Your task to perform on an android device: Open notification settings Image 0: 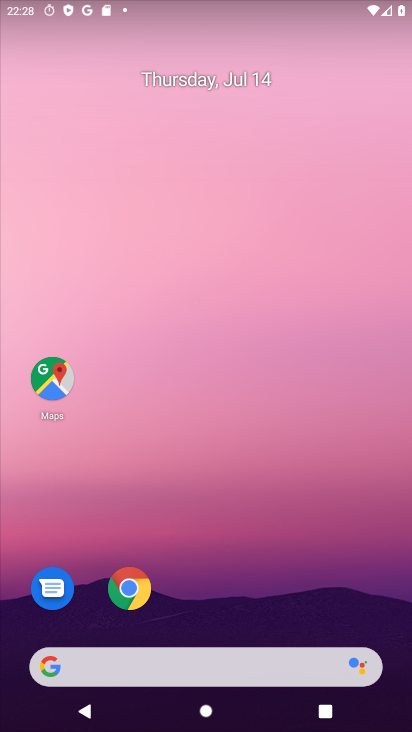
Step 0: drag from (224, 611) to (258, 166)
Your task to perform on an android device: Open notification settings Image 1: 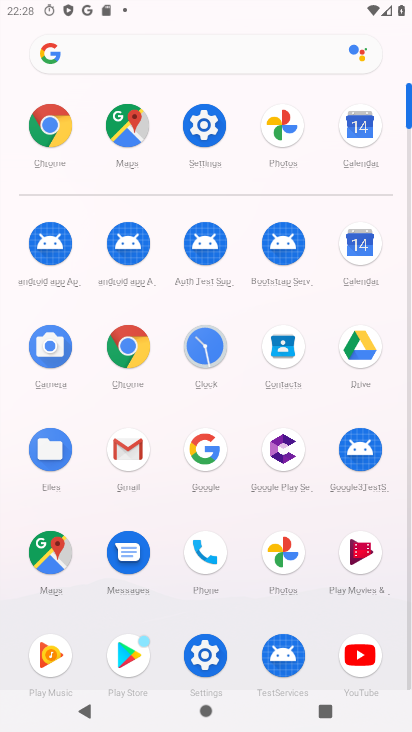
Step 1: click (200, 119)
Your task to perform on an android device: Open notification settings Image 2: 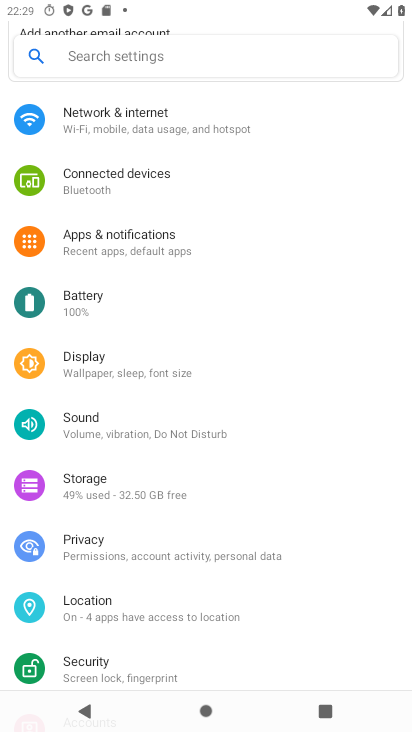
Step 2: click (151, 230)
Your task to perform on an android device: Open notification settings Image 3: 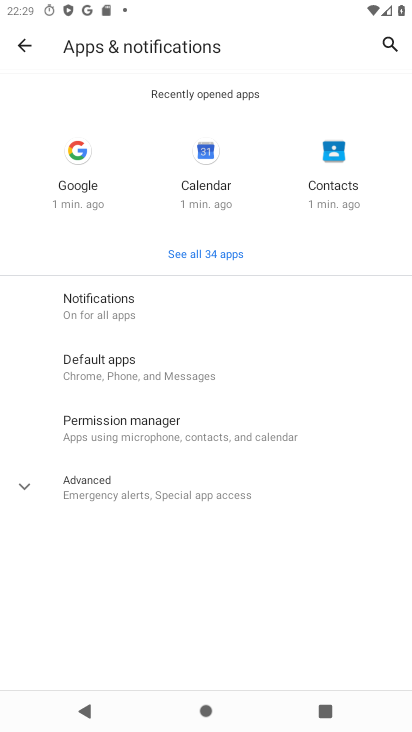
Step 3: click (111, 301)
Your task to perform on an android device: Open notification settings Image 4: 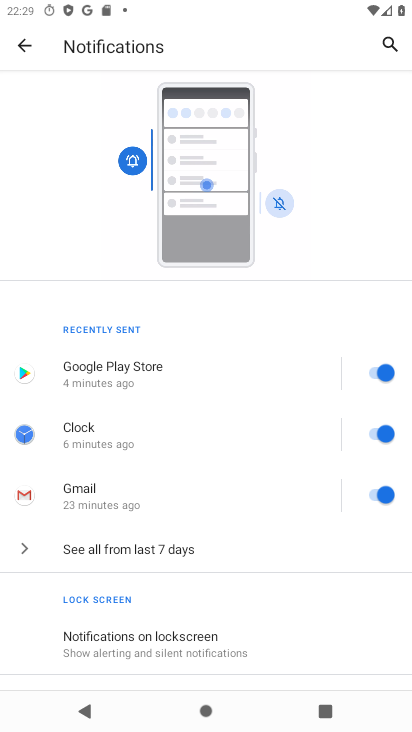
Step 4: task complete